Your task to perform on an android device: Open the web browser Image 0: 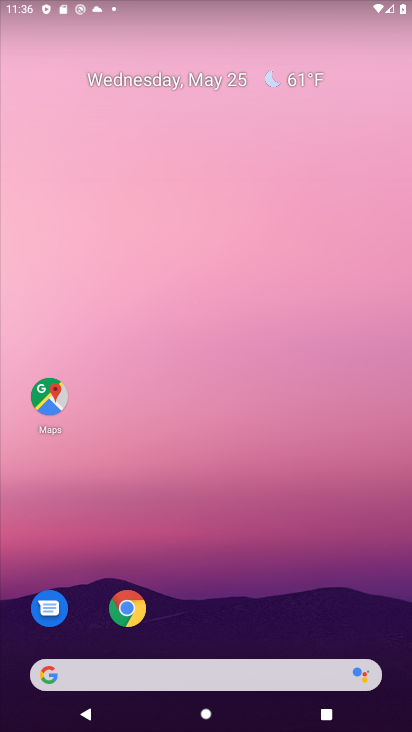
Step 0: click (128, 609)
Your task to perform on an android device: Open the web browser Image 1: 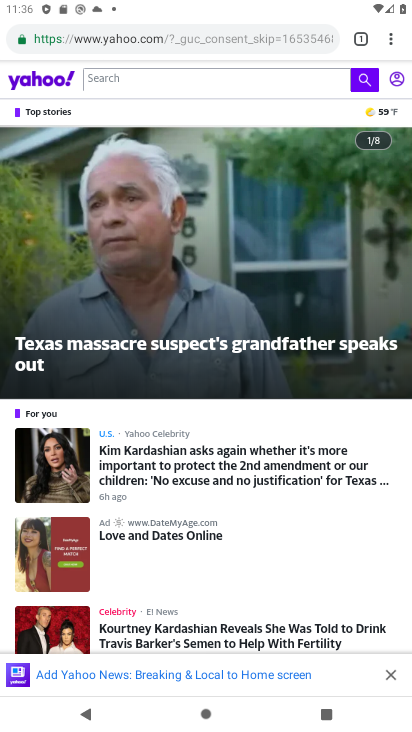
Step 1: task complete